Your task to perform on an android device: stop showing notifications on the lock screen Image 0: 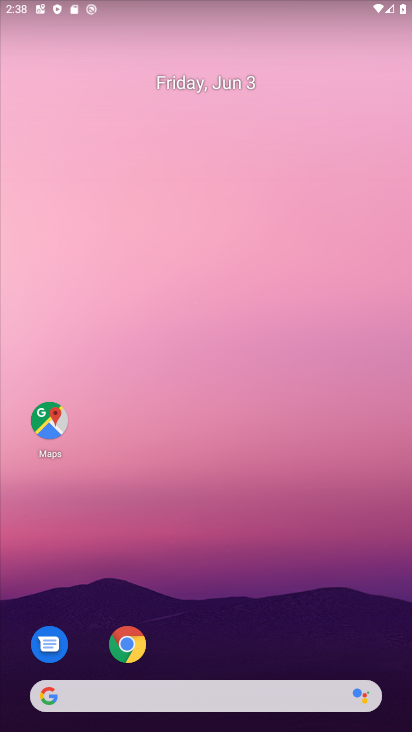
Step 0: drag from (189, 637) to (249, 161)
Your task to perform on an android device: stop showing notifications on the lock screen Image 1: 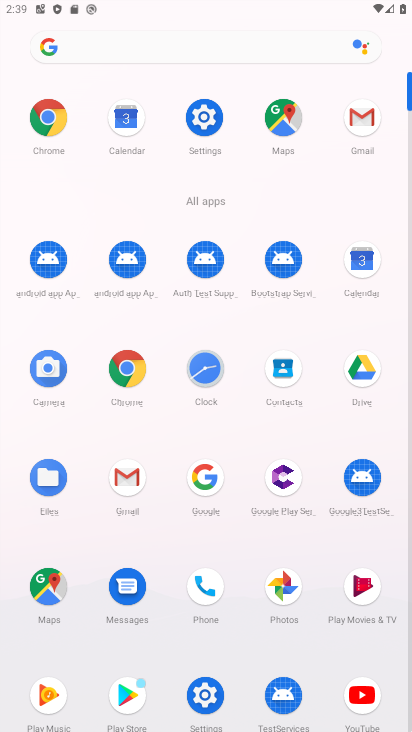
Step 1: click (214, 127)
Your task to perform on an android device: stop showing notifications on the lock screen Image 2: 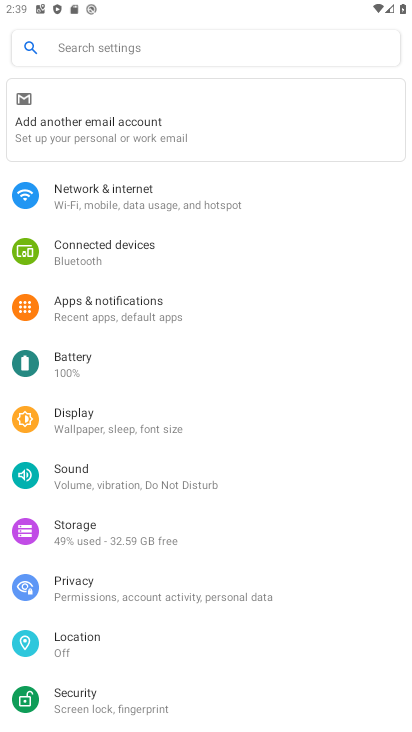
Step 2: click (169, 294)
Your task to perform on an android device: stop showing notifications on the lock screen Image 3: 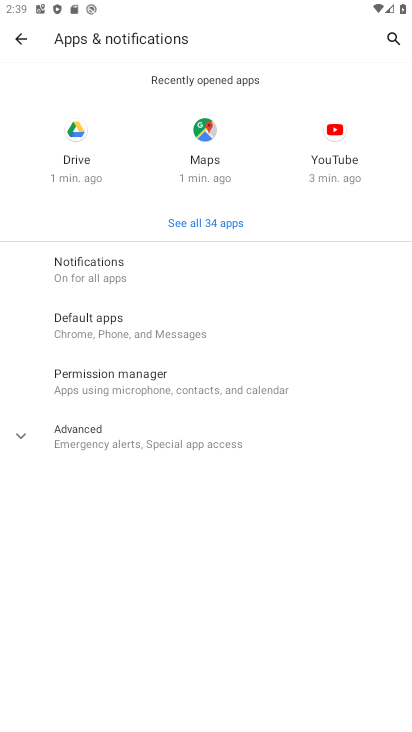
Step 3: click (127, 274)
Your task to perform on an android device: stop showing notifications on the lock screen Image 4: 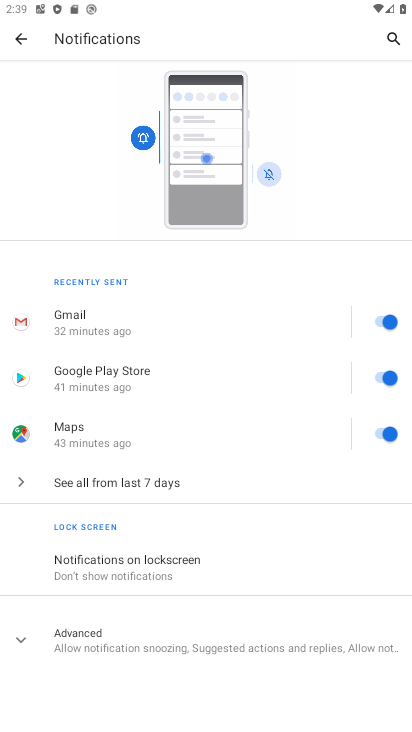
Step 4: click (202, 584)
Your task to perform on an android device: stop showing notifications on the lock screen Image 5: 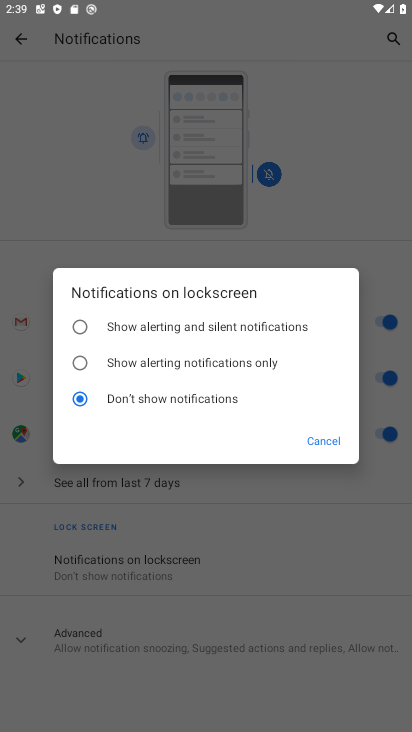
Step 5: task complete